Your task to perform on an android device: change the clock display to analog Image 0: 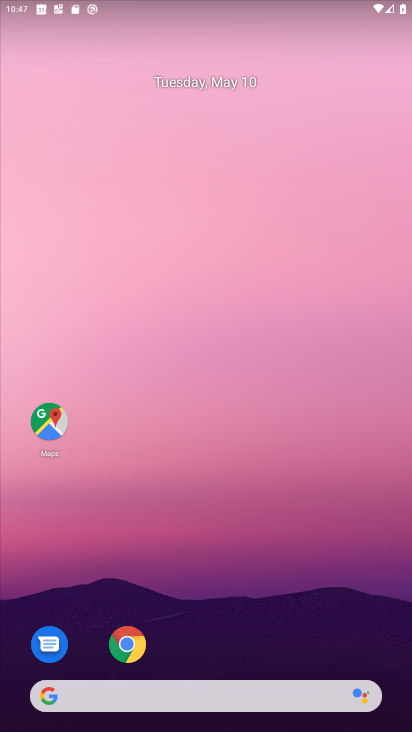
Step 0: drag from (264, 654) to (248, 132)
Your task to perform on an android device: change the clock display to analog Image 1: 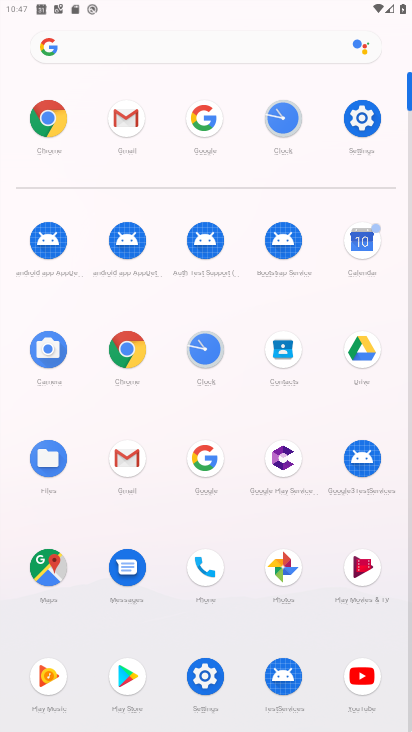
Step 1: click (216, 369)
Your task to perform on an android device: change the clock display to analog Image 2: 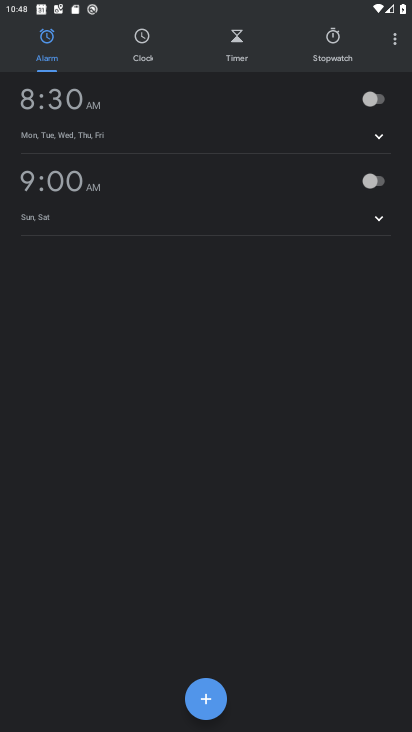
Step 2: click (391, 41)
Your task to perform on an android device: change the clock display to analog Image 3: 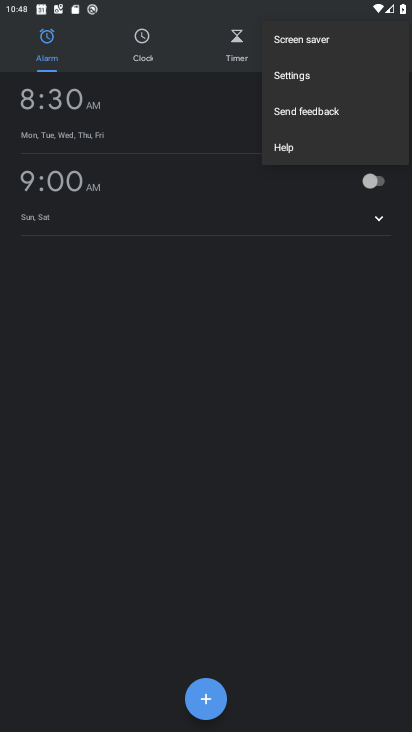
Step 3: click (320, 79)
Your task to perform on an android device: change the clock display to analog Image 4: 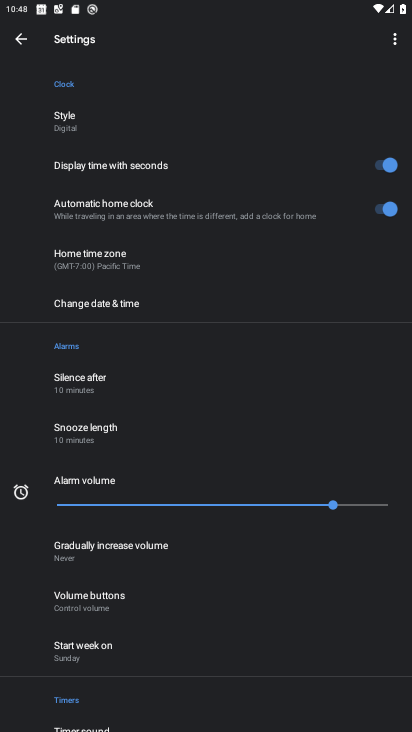
Step 4: click (152, 120)
Your task to perform on an android device: change the clock display to analog Image 5: 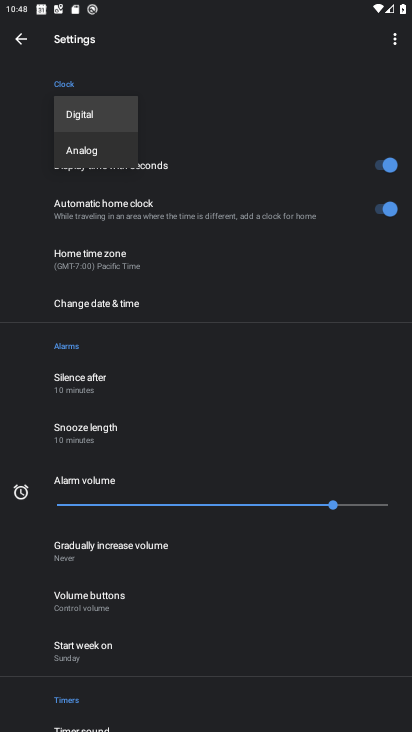
Step 5: click (124, 154)
Your task to perform on an android device: change the clock display to analog Image 6: 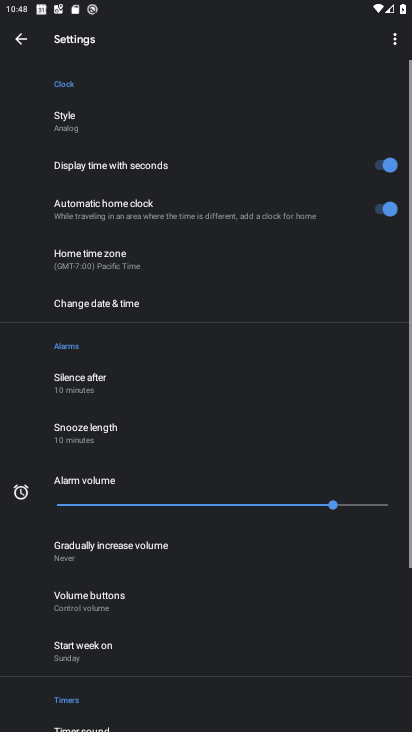
Step 6: task complete